Your task to perform on an android device: Go to Wikipedia Image 0: 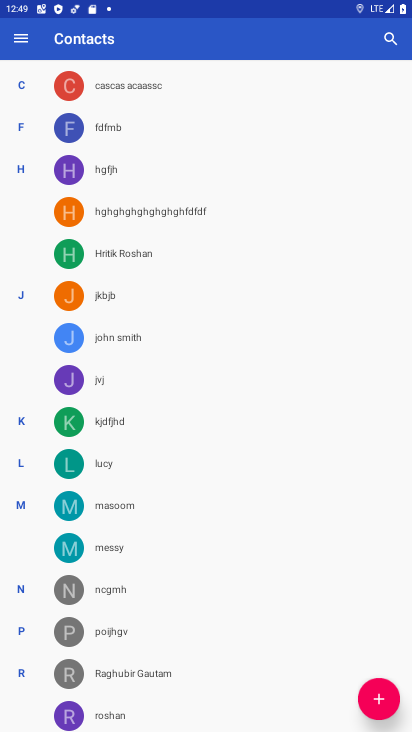
Step 0: press home button
Your task to perform on an android device: Go to Wikipedia Image 1: 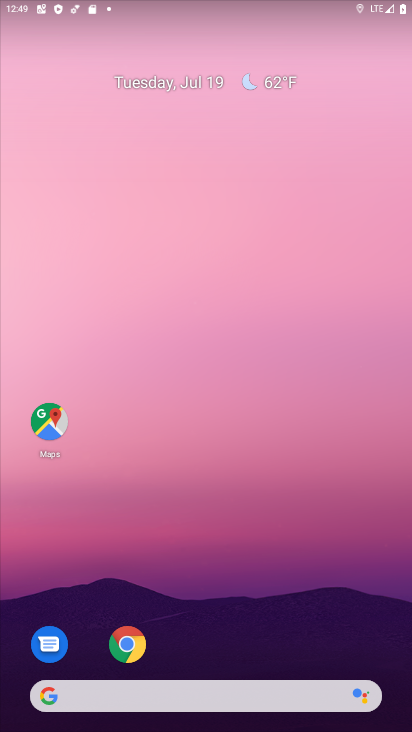
Step 1: click (126, 646)
Your task to perform on an android device: Go to Wikipedia Image 2: 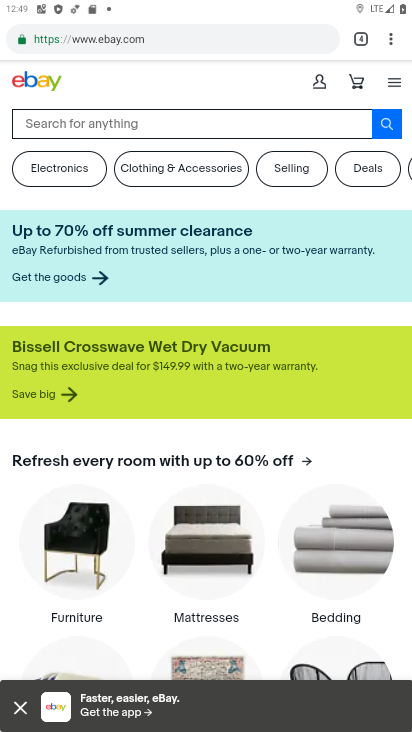
Step 2: click (391, 37)
Your task to perform on an android device: Go to Wikipedia Image 3: 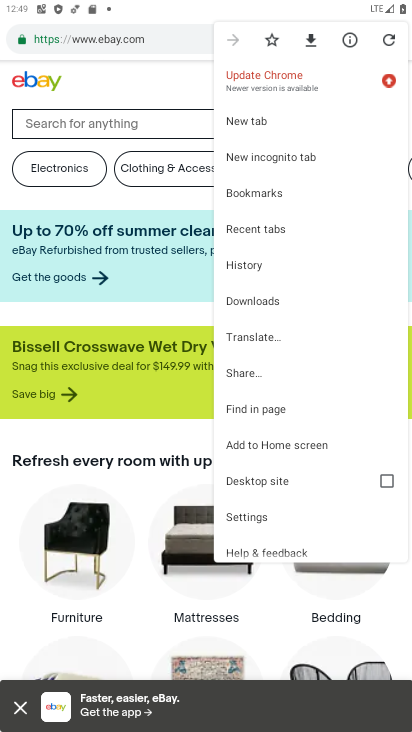
Step 3: click (264, 116)
Your task to perform on an android device: Go to Wikipedia Image 4: 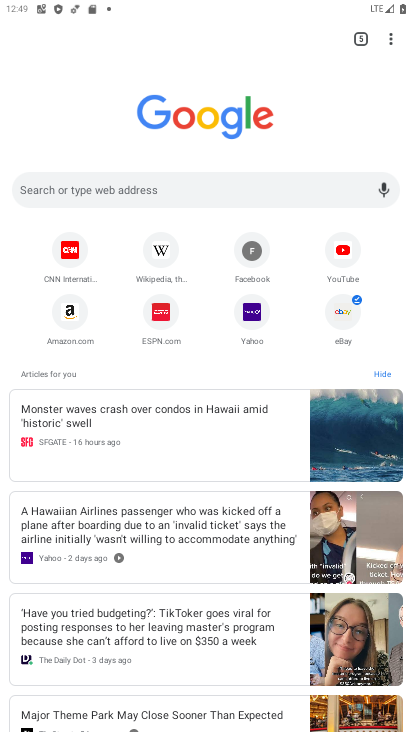
Step 4: click (159, 245)
Your task to perform on an android device: Go to Wikipedia Image 5: 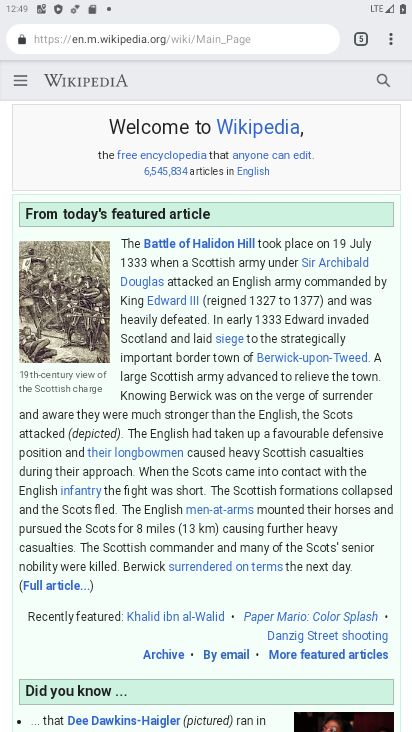
Step 5: task complete